Your task to perform on an android device: turn vacation reply on in the gmail app Image 0: 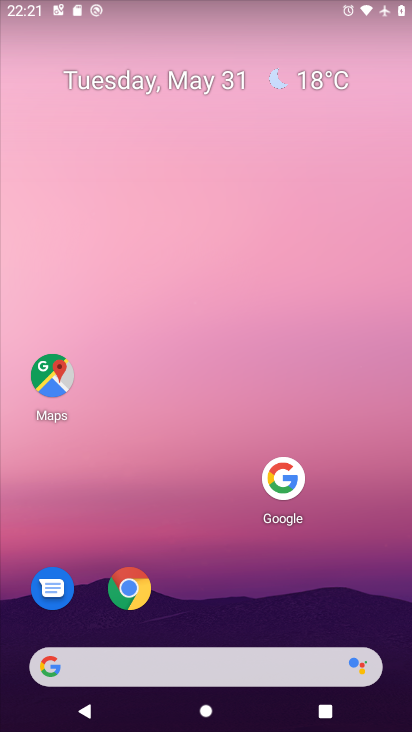
Step 0: drag from (126, 667) to (252, 159)
Your task to perform on an android device: turn vacation reply on in the gmail app Image 1: 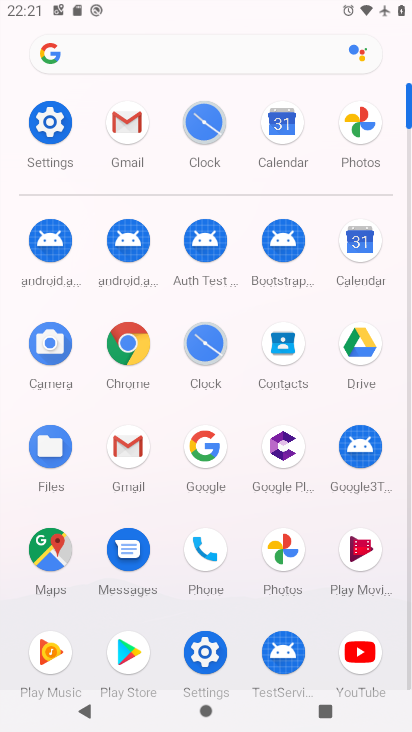
Step 1: click (132, 126)
Your task to perform on an android device: turn vacation reply on in the gmail app Image 2: 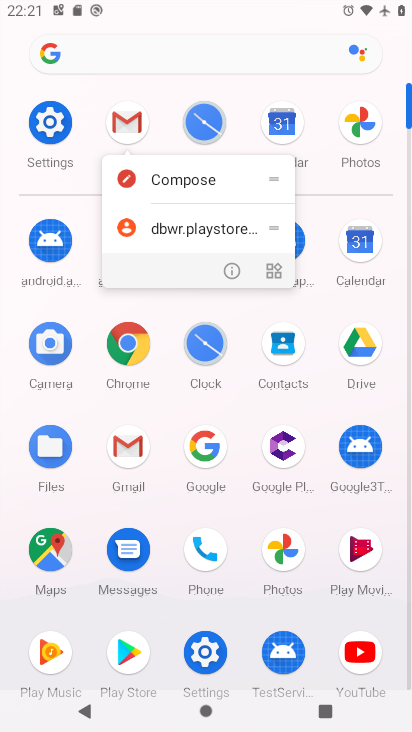
Step 2: click (126, 121)
Your task to perform on an android device: turn vacation reply on in the gmail app Image 3: 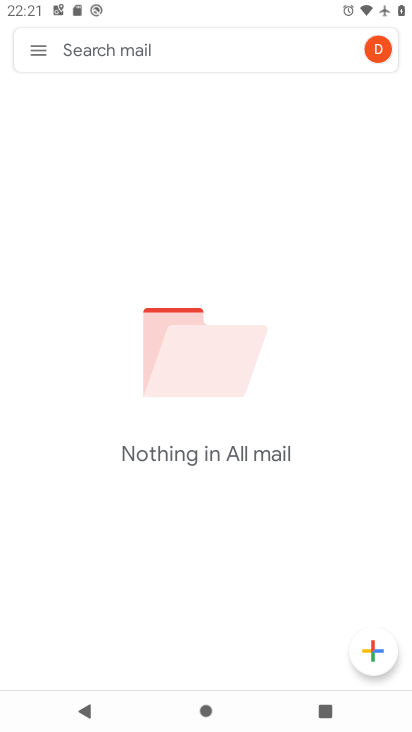
Step 3: click (41, 44)
Your task to perform on an android device: turn vacation reply on in the gmail app Image 4: 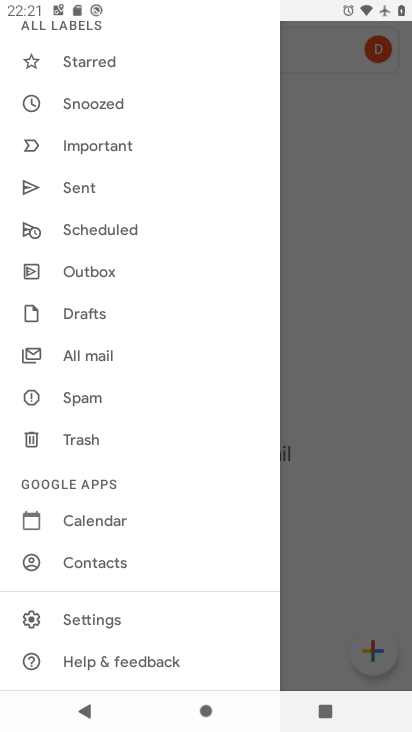
Step 4: click (107, 619)
Your task to perform on an android device: turn vacation reply on in the gmail app Image 5: 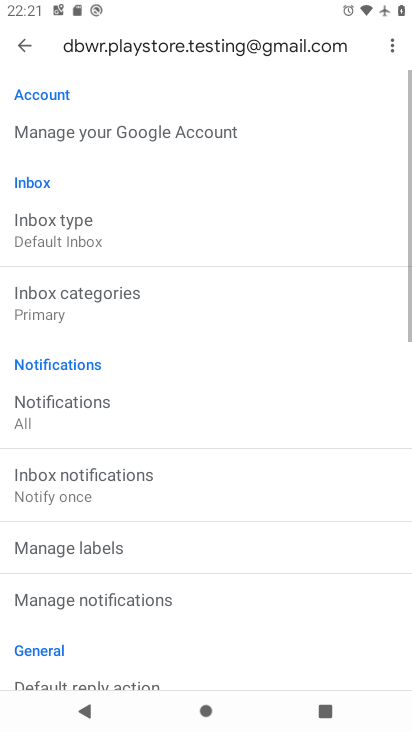
Step 5: drag from (123, 647) to (296, 70)
Your task to perform on an android device: turn vacation reply on in the gmail app Image 6: 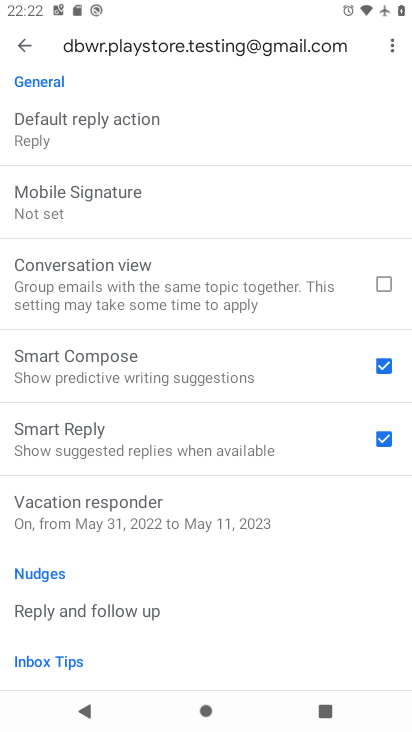
Step 6: click (106, 519)
Your task to perform on an android device: turn vacation reply on in the gmail app Image 7: 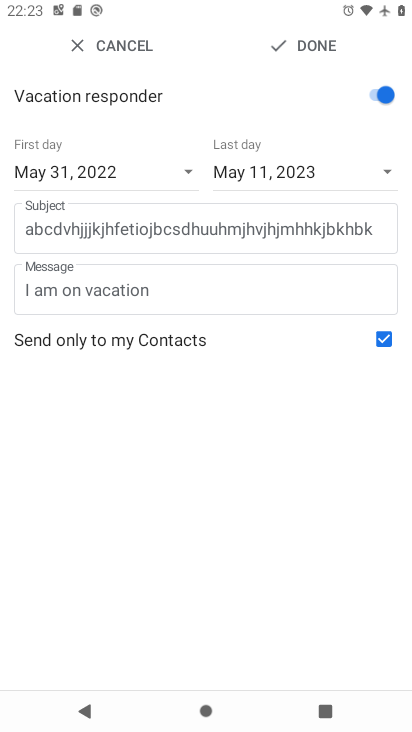
Step 7: task complete